Your task to perform on an android device: create a new album in the google photos Image 0: 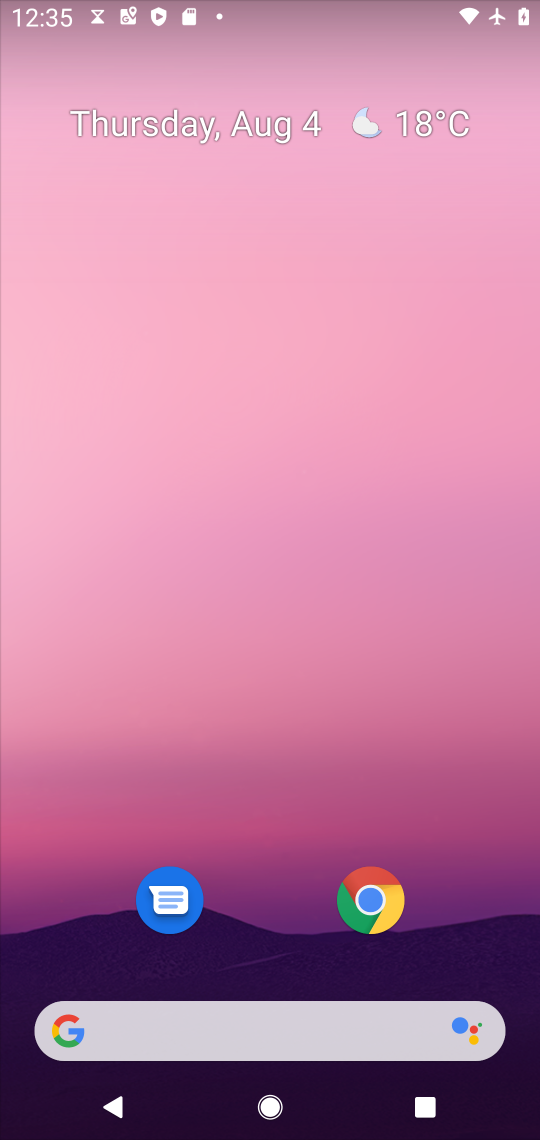
Step 0: press home button
Your task to perform on an android device: create a new album in the google photos Image 1: 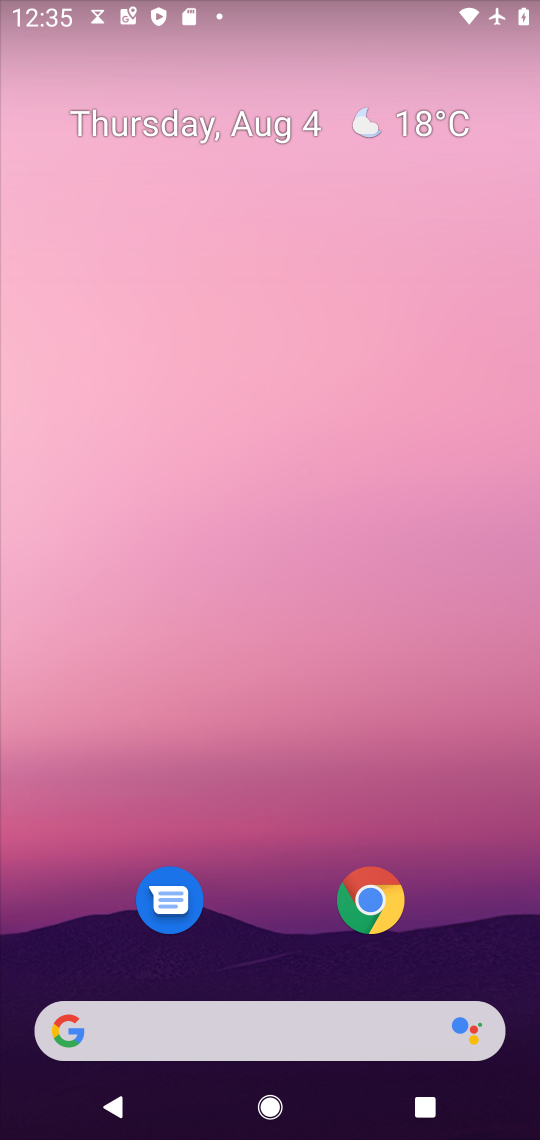
Step 1: drag from (301, 636) to (296, 143)
Your task to perform on an android device: create a new album in the google photos Image 2: 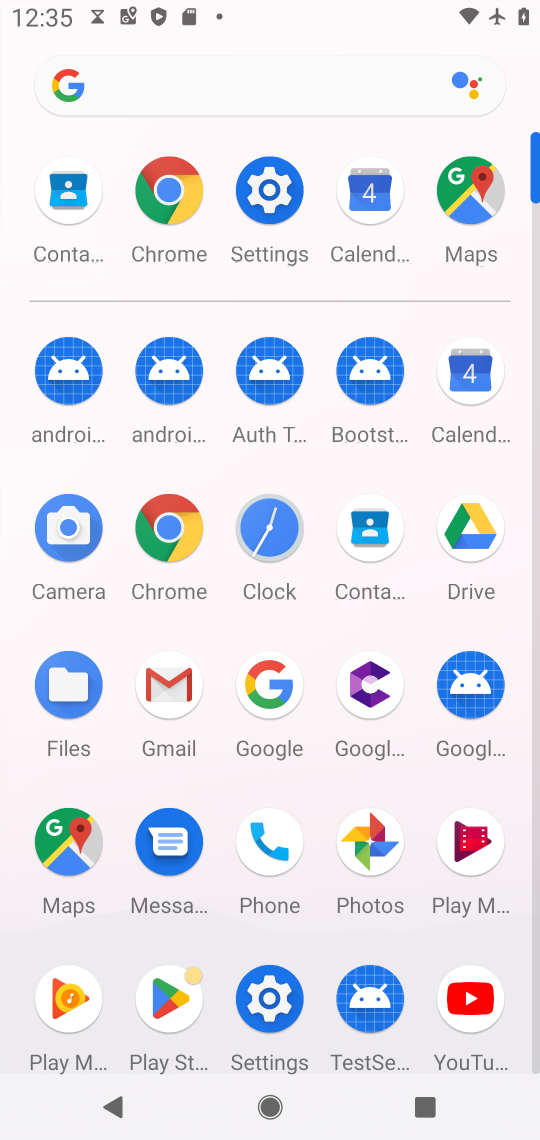
Step 2: click (365, 848)
Your task to perform on an android device: create a new album in the google photos Image 3: 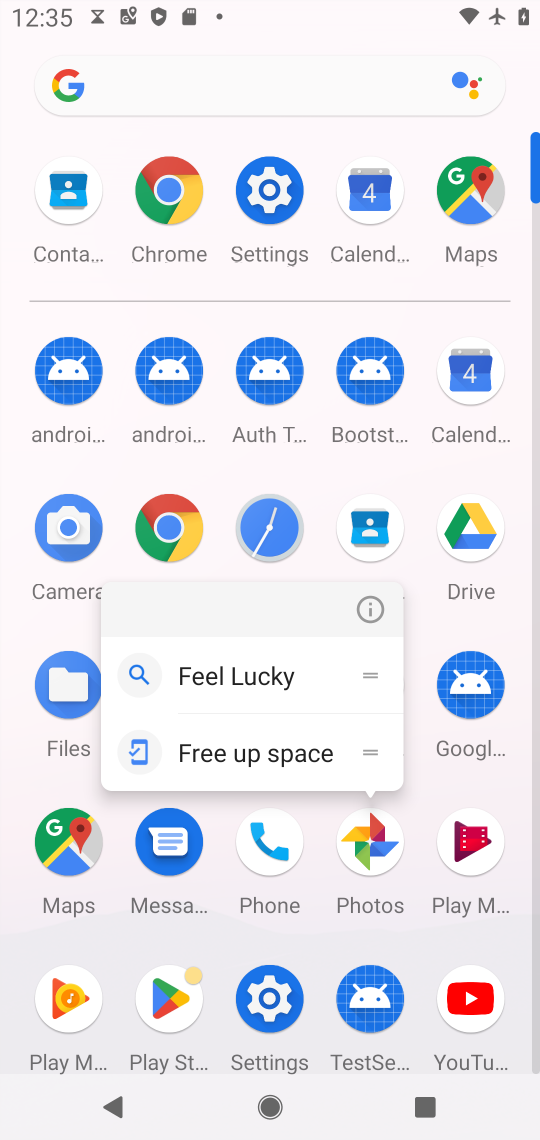
Step 3: click (389, 847)
Your task to perform on an android device: create a new album in the google photos Image 4: 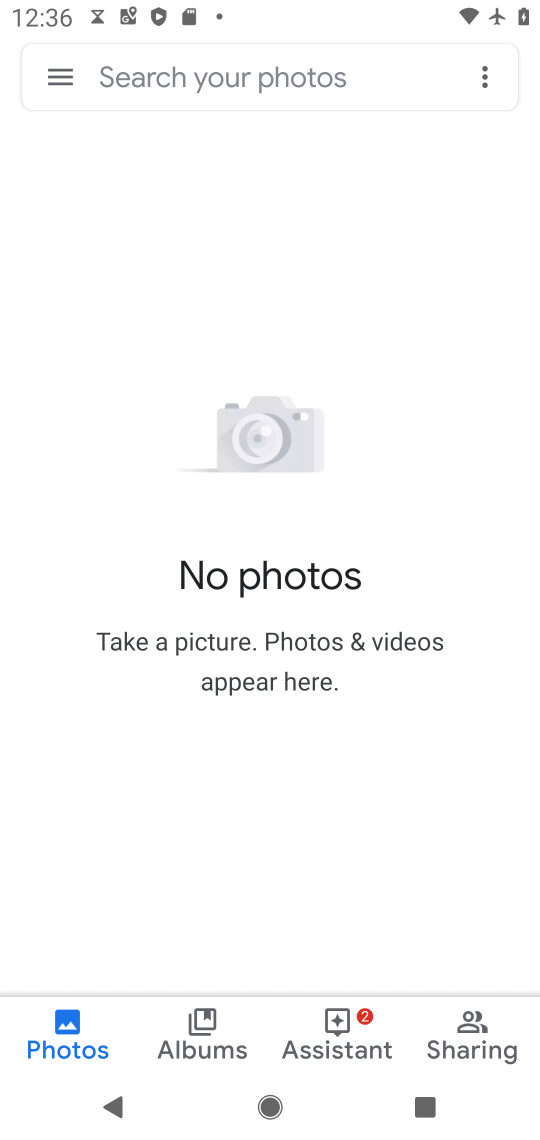
Step 4: task complete